Your task to perform on an android device: Open Maps and search for coffee Image 0: 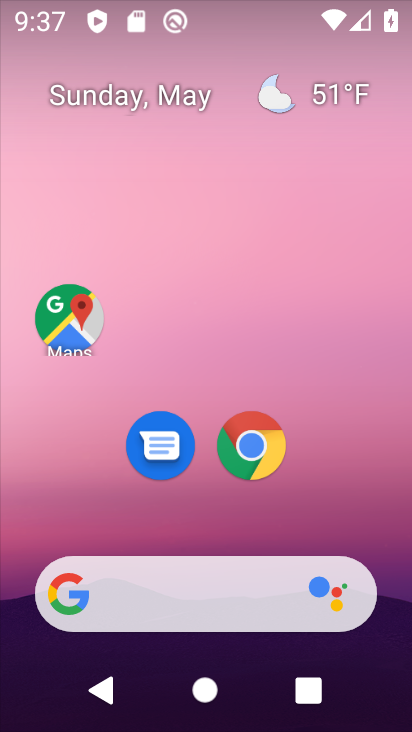
Step 0: click (68, 339)
Your task to perform on an android device: Open Maps and search for coffee Image 1: 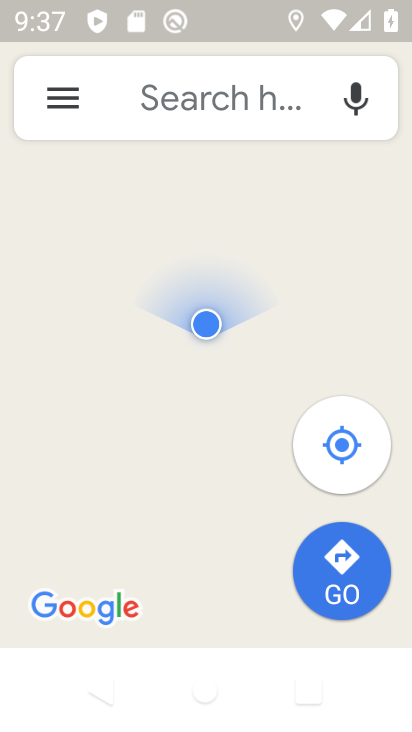
Step 1: click (201, 111)
Your task to perform on an android device: Open Maps and search for coffee Image 2: 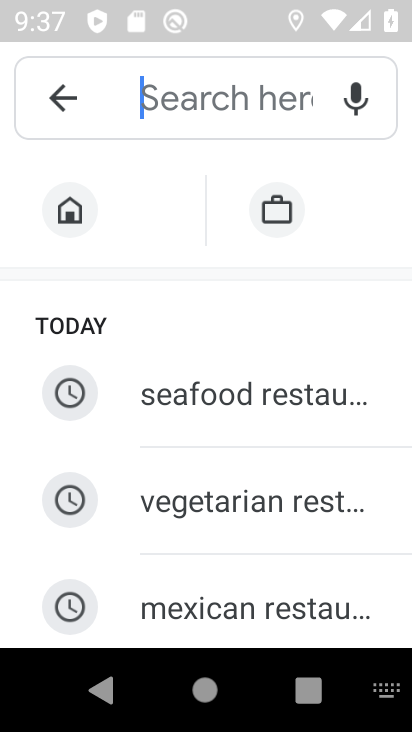
Step 2: type "Coffee "
Your task to perform on an android device: Open Maps and search for coffee Image 3: 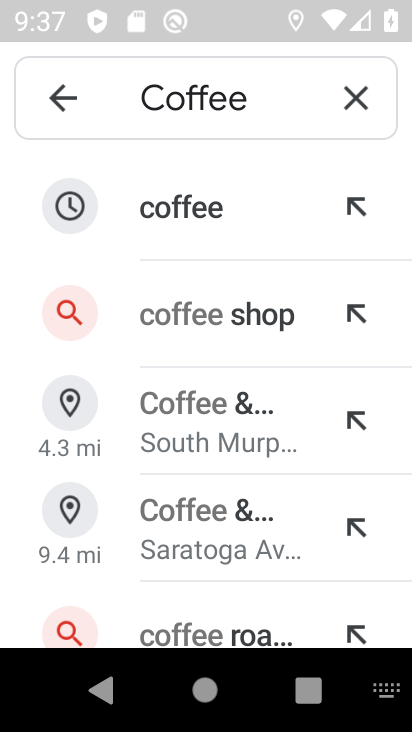
Step 3: click (263, 323)
Your task to perform on an android device: Open Maps and search for coffee Image 4: 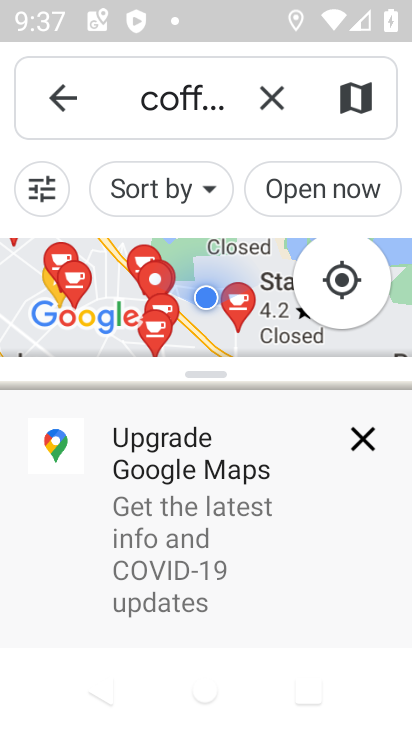
Step 4: click (360, 435)
Your task to perform on an android device: Open Maps and search for coffee Image 5: 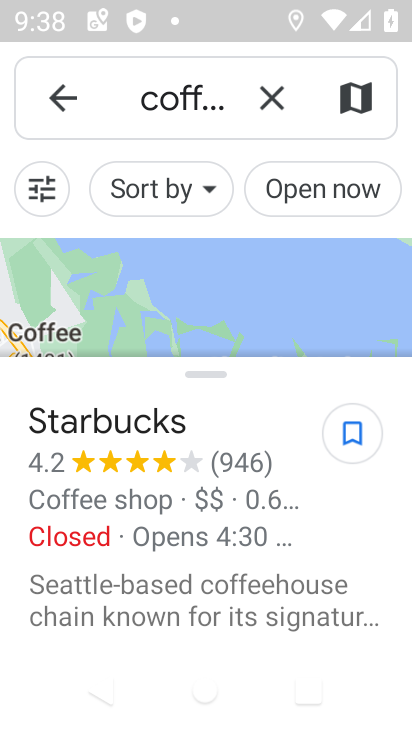
Step 5: task complete